Your task to perform on an android device: star an email in the gmail app Image 0: 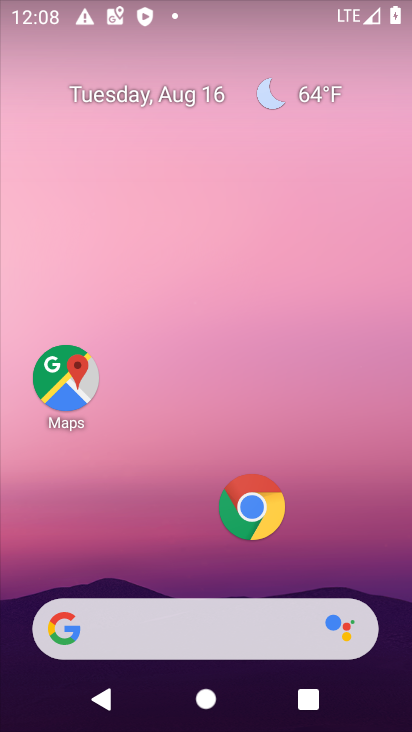
Step 0: drag from (198, 573) to (182, 0)
Your task to perform on an android device: star an email in the gmail app Image 1: 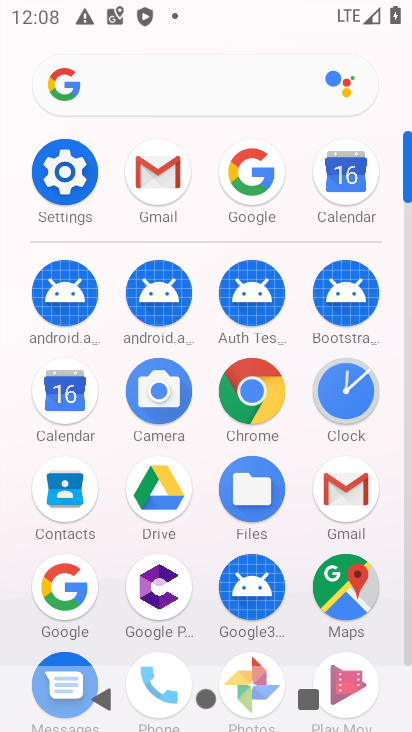
Step 1: click (156, 165)
Your task to perform on an android device: star an email in the gmail app Image 2: 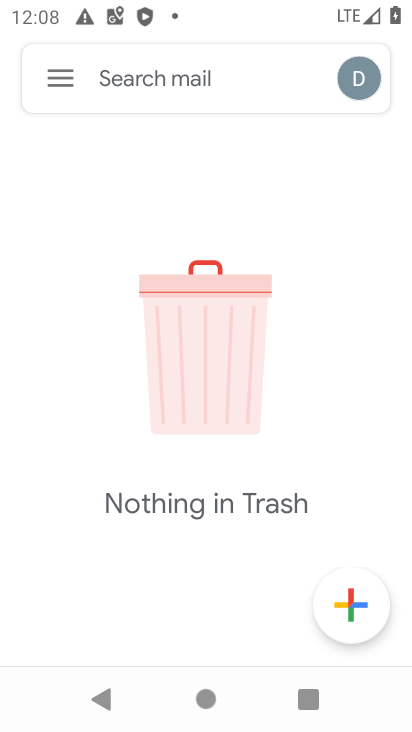
Step 2: click (68, 80)
Your task to perform on an android device: star an email in the gmail app Image 3: 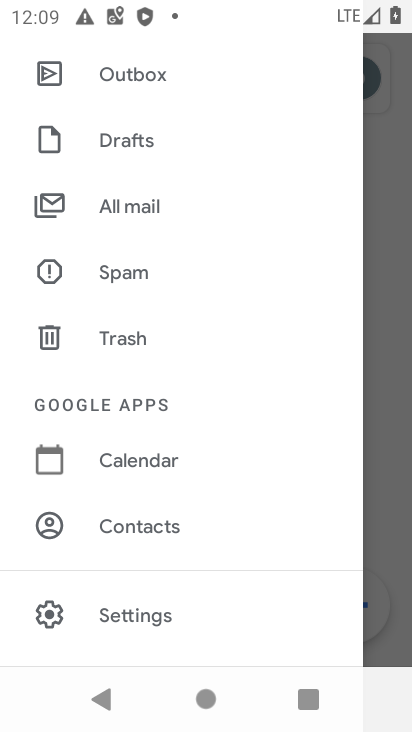
Step 3: click (120, 202)
Your task to perform on an android device: star an email in the gmail app Image 4: 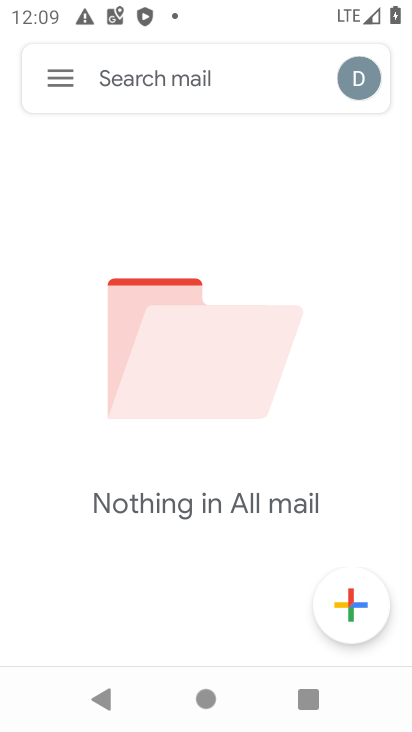
Step 4: task complete